Your task to perform on an android device: Open calendar and show me the third week of next month Image 0: 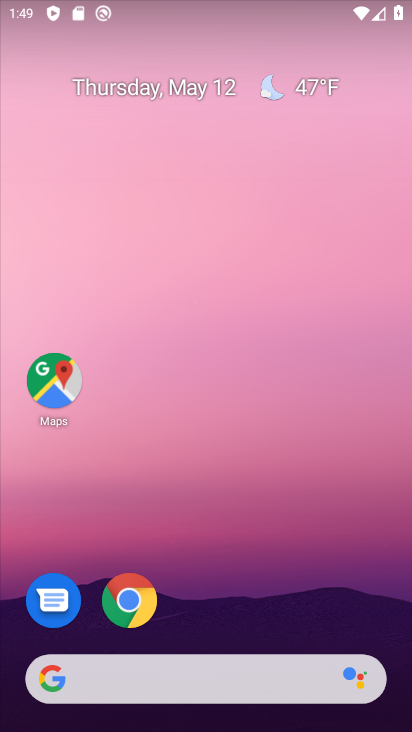
Step 0: drag from (199, 388) to (235, 0)
Your task to perform on an android device: Open calendar and show me the third week of next month Image 1: 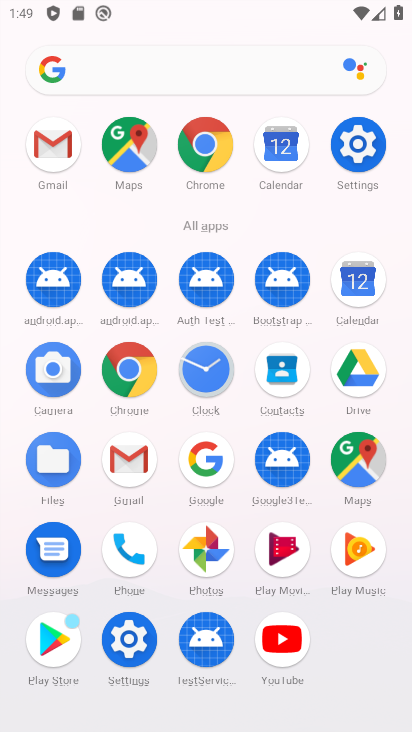
Step 1: click (358, 275)
Your task to perform on an android device: Open calendar and show me the third week of next month Image 2: 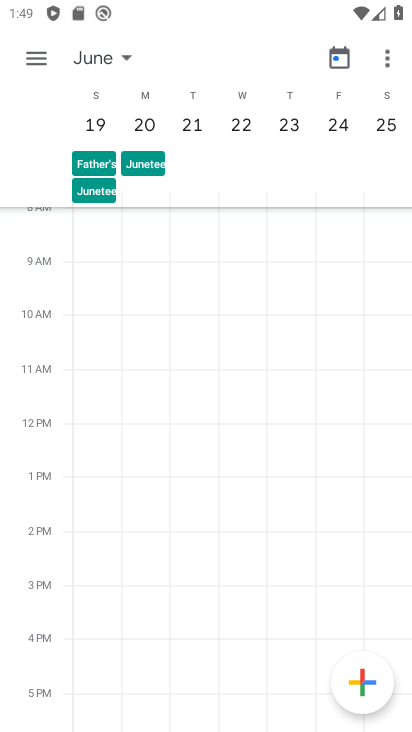
Step 2: task complete